Your task to perform on an android device: Clear the cart on ebay. Add asus zenbook to the cart on ebay, then select checkout. Image 0: 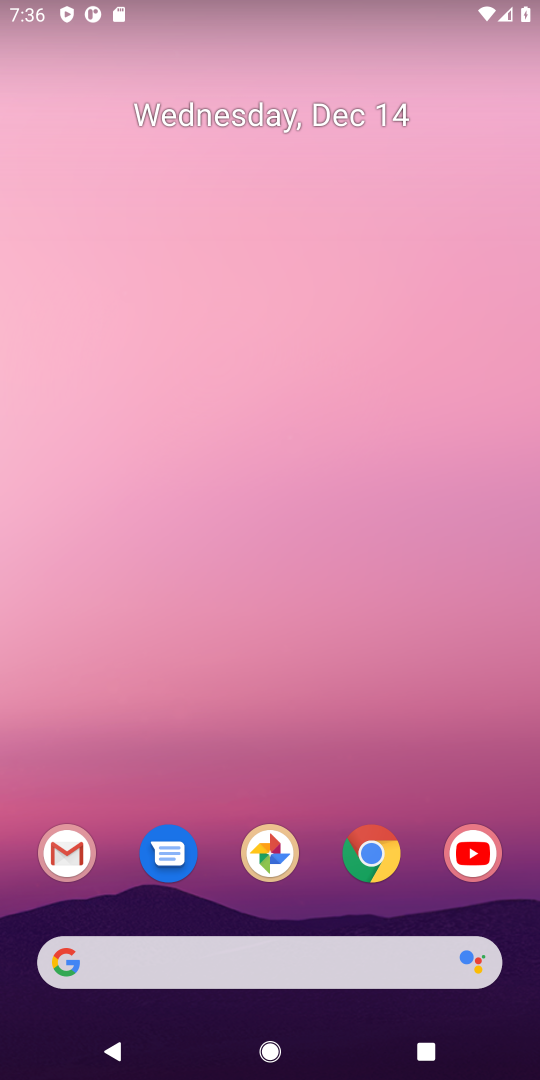
Step 0: click (369, 852)
Your task to perform on an android device: Clear the cart on ebay. Add asus zenbook to the cart on ebay, then select checkout. Image 1: 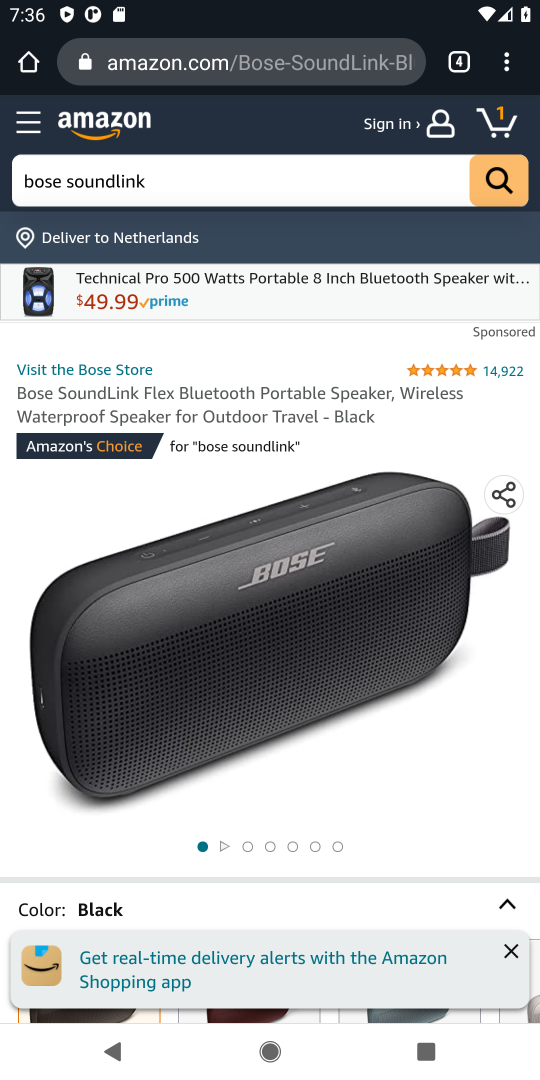
Step 1: click (473, 62)
Your task to perform on an android device: Clear the cart on ebay. Add asus zenbook to the cart on ebay, then select checkout. Image 2: 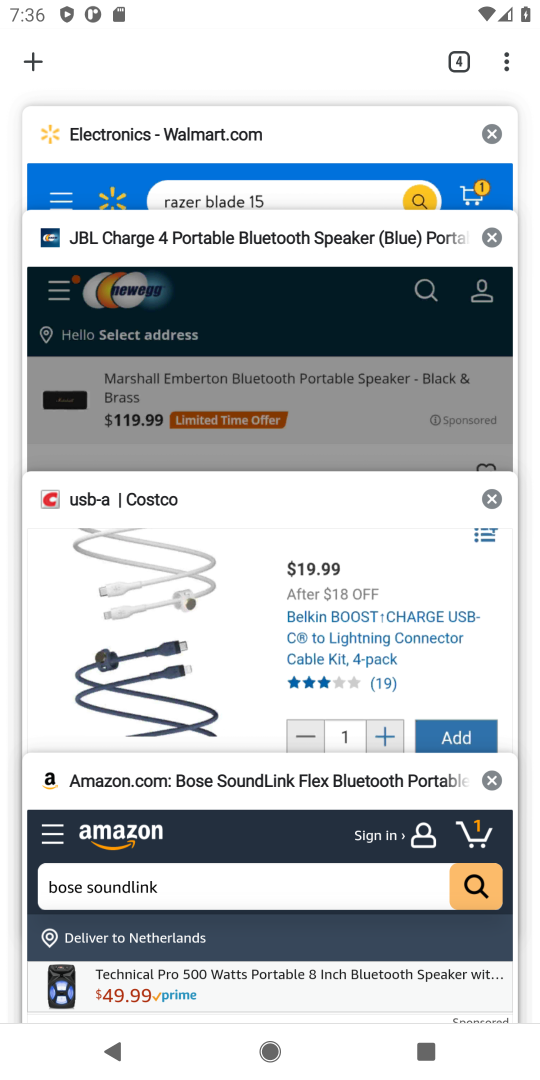
Step 2: click (36, 66)
Your task to perform on an android device: Clear the cart on ebay. Add asus zenbook to the cart on ebay, then select checkout. Image 3: 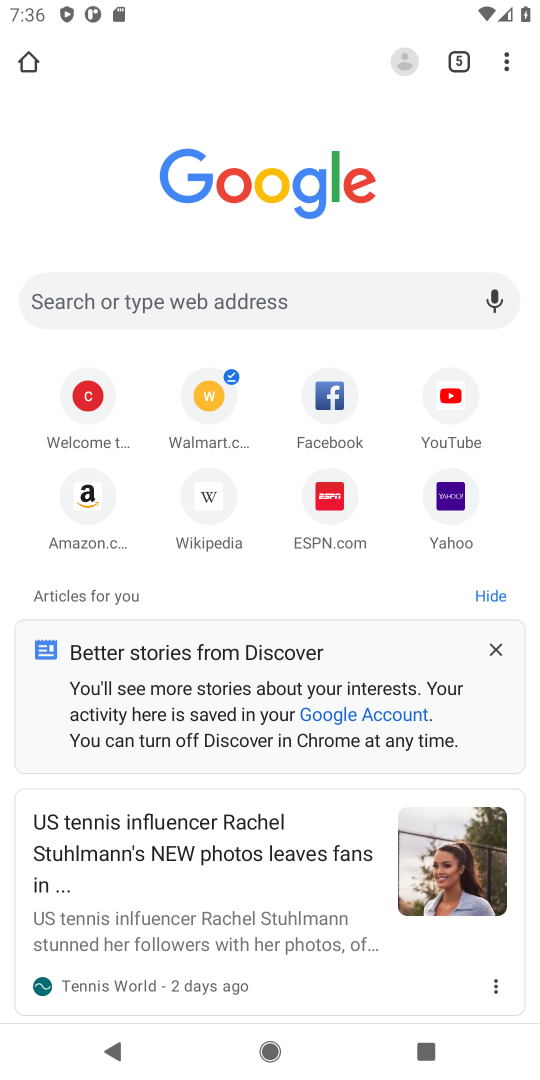
Step 3: click (273, 306)
Your task to perform on an android device: Clear the cart on ebay. Add asus zenbook to the cart on ebay, then select checkout. Image 4: 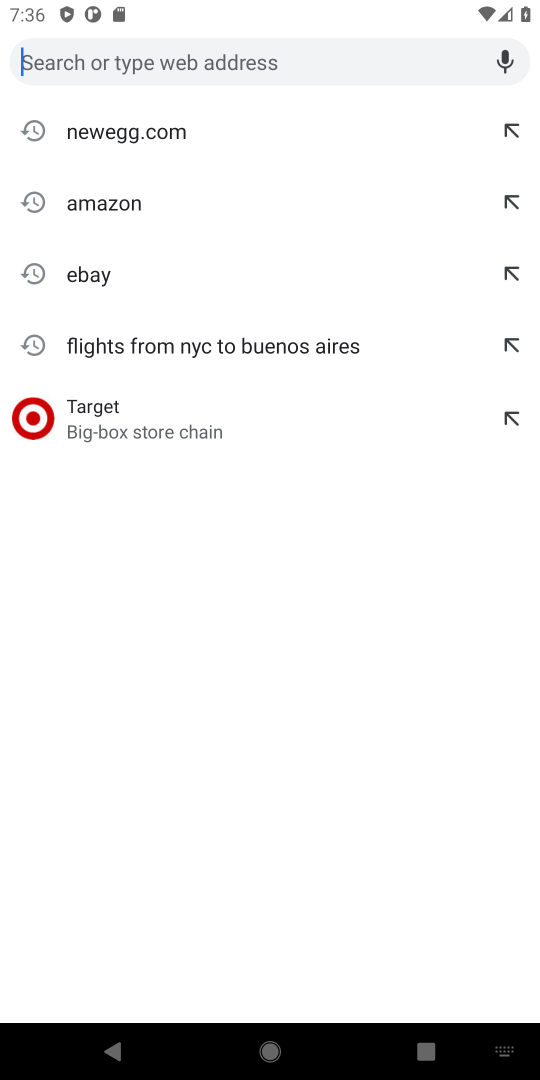
Step 4: click (60, 274)
Your task to perform on an android device: Clear the cart on ebay. Add asus zenbook to the cart on ebay, then select checkout. Image 5: 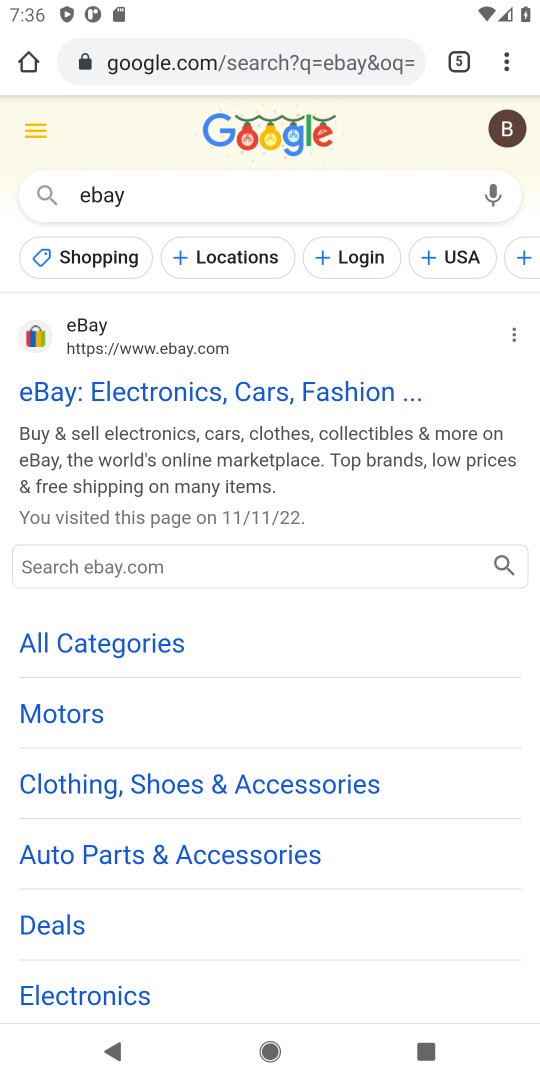
Step 5: click (111, 392)
Your task to perform on an android device: Clear the cart on ebay. Add asus zenbook to the cart on ebay, then select checkout. Image 6: 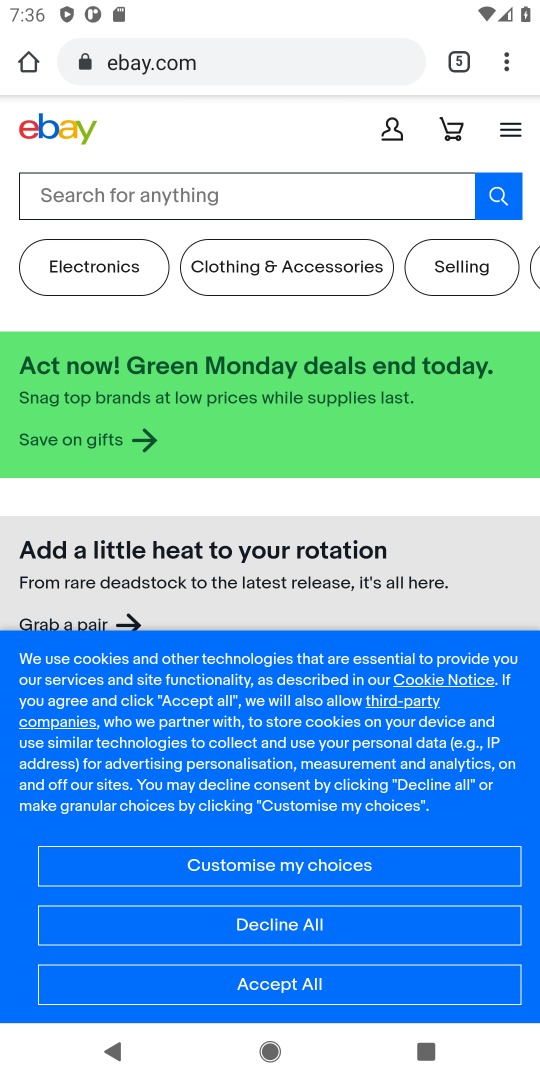
Step 6: click (356, 914)
Your task to perform on an android device: Clear the cart on ebay. Add asus zenbook to the cart on ebay, then select checkout. Image 7: 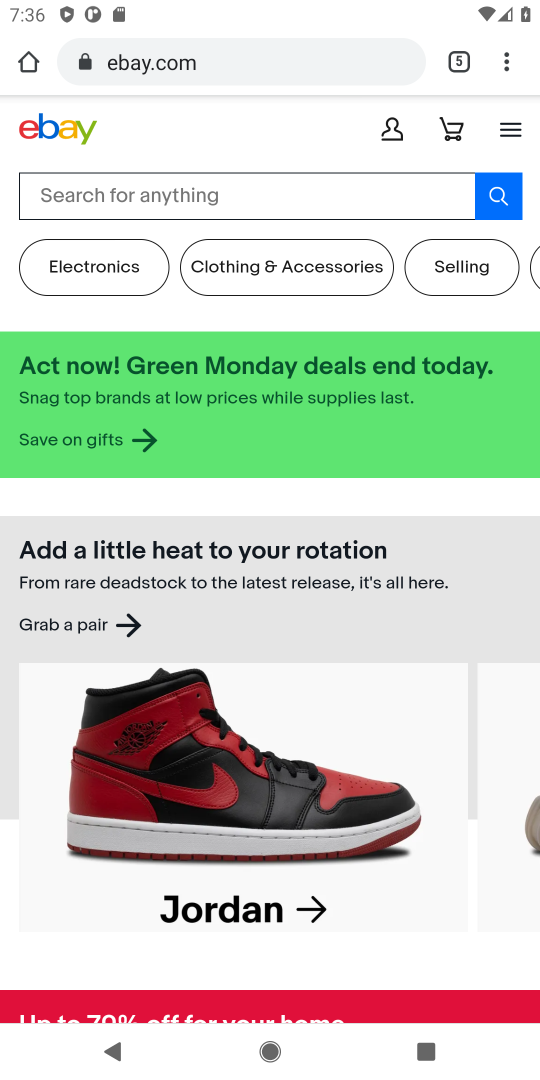
Step 7: click (170, 202)
Your task to perform on an android device: Clear the cart on ebay. Add asus zenbook to the cart on ebay, then select checkout. Image 8: 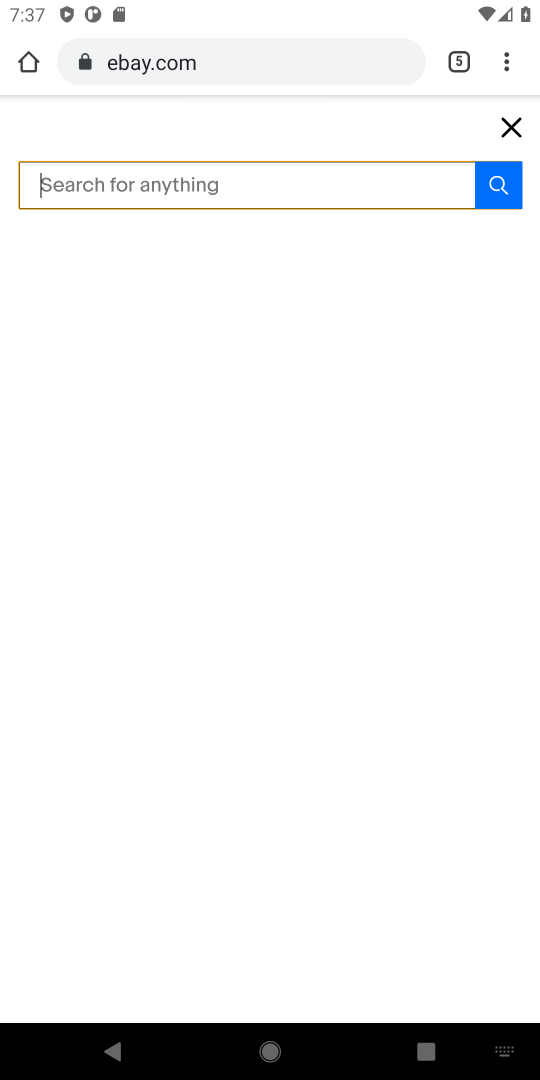
Step 8: type "asus zenbook"
Your task to perform on an android device: Clear the cart on ebay. Add asus zenbook to the cart on ebay, then select checkout. Image 9: 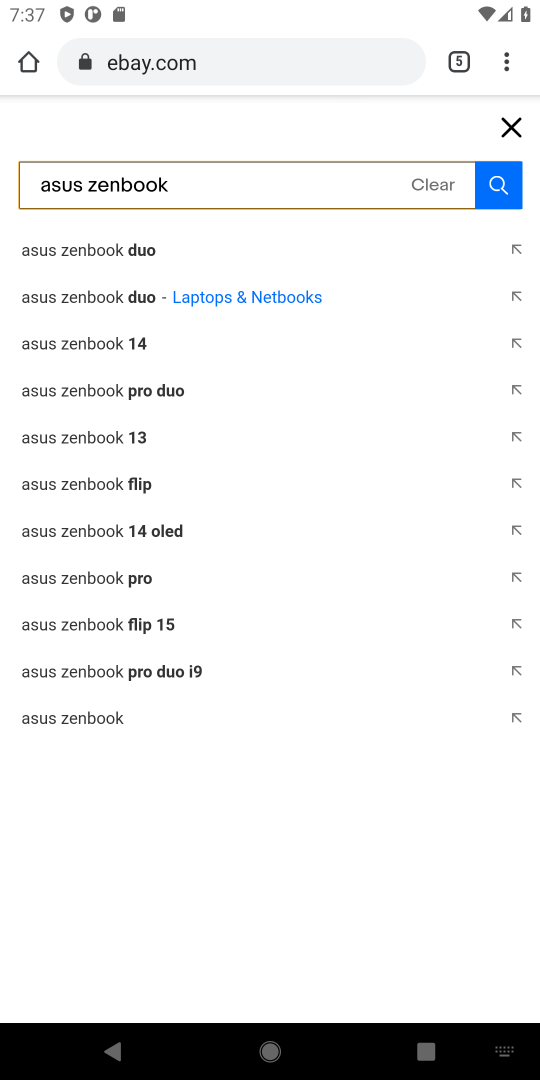
Step 9: click (499, 190)
Your task to perform on an android device: Clear the cart on ebay. Add asus zenbook to the cart on ebay, then select checkout. Image 10: 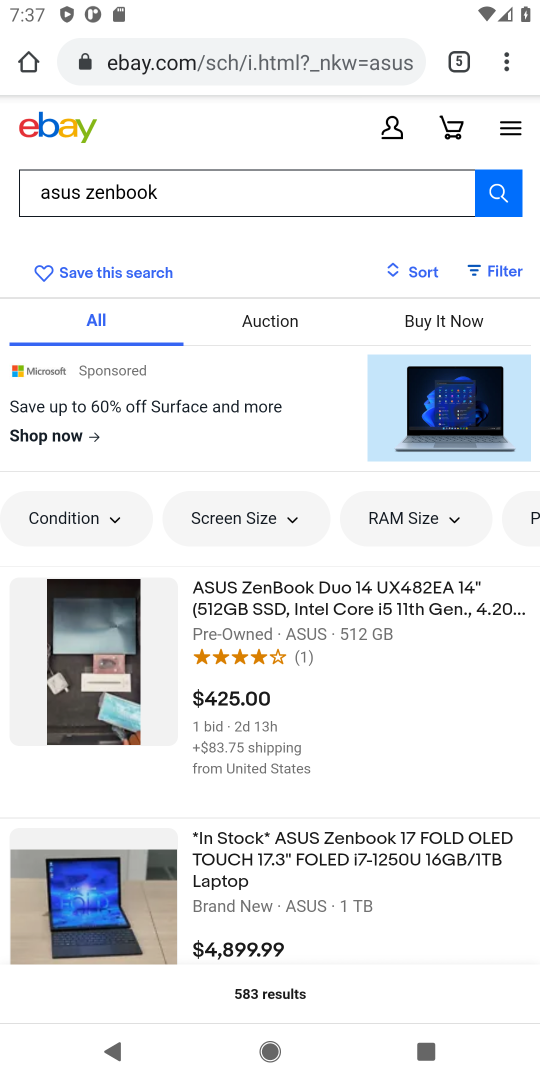
Step 10: click (315, 601)
Your task to perform on an android device: Clear the cart on ebay. Add asus zenbook to the cart on ebay, then select checkout. Image 11: 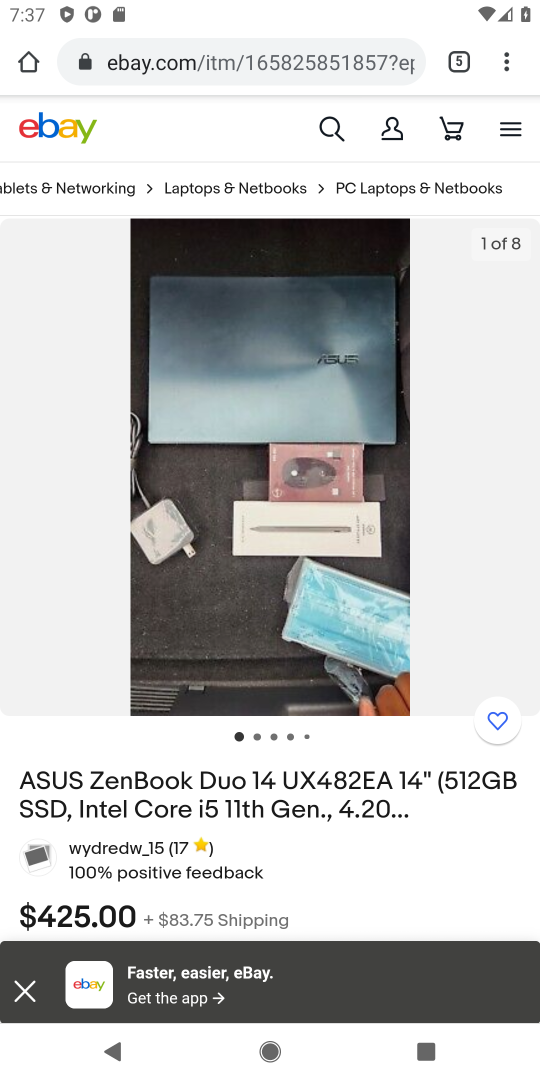
Step 11: click (27, 995)
Your task to perform on an android device: Clear the cart on ebay. Add asus zenbook to the cart on ebay, then select checkout. Image 12: 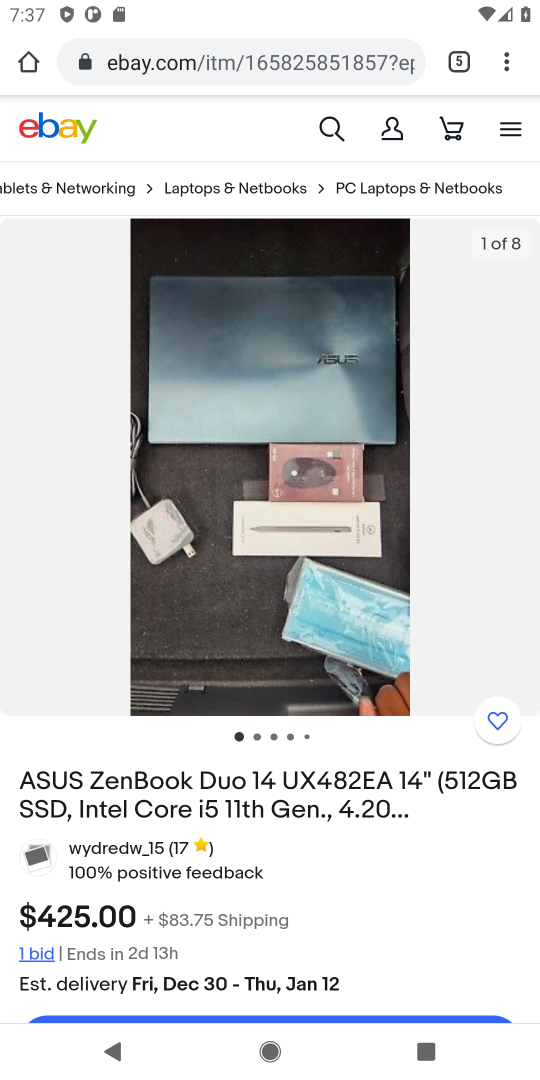
Step 12: drag from (273, 963) to (409, 321)
Your task to perform on an android device: Clear the cart on ebay. Add asus zenbook to the cart on ebay, then select checkout. Image 13: 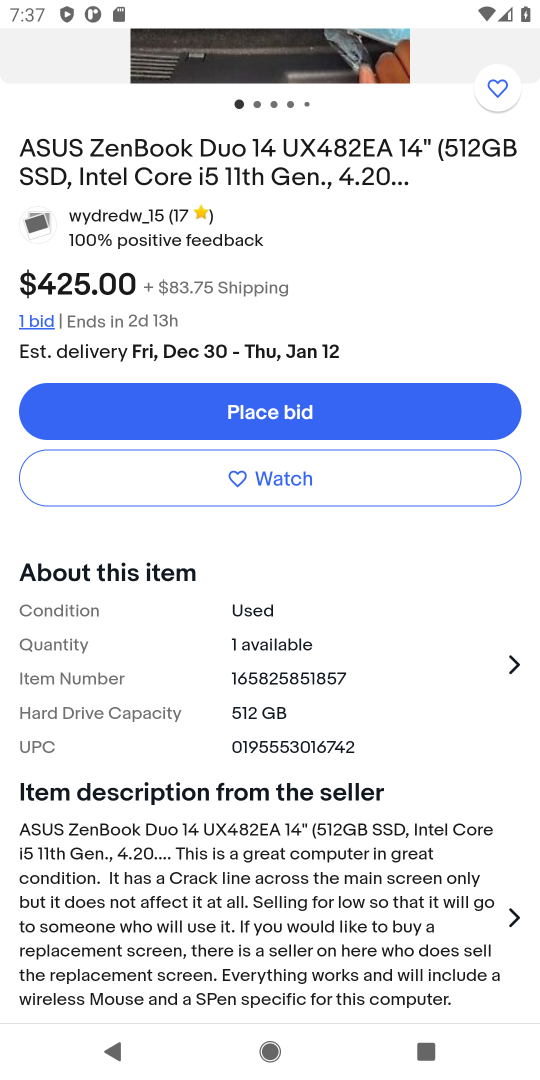
Step 13: drag from (306, 904) to (454, 262)
Your task to perform on an android device: Clear the cart on ebay. Add asus zenbook to the cart on ebay, then select checkout. Image 14: 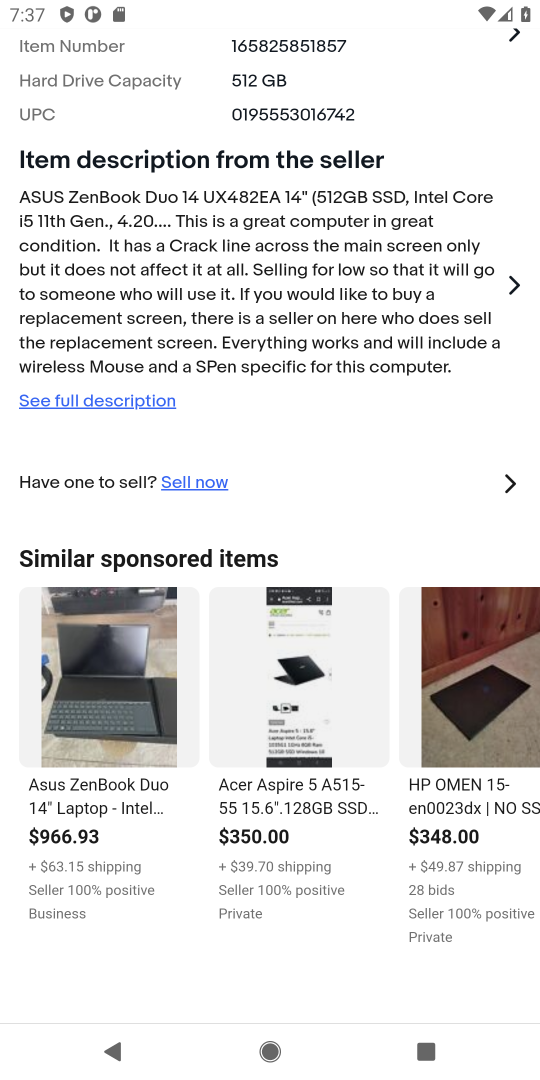
Step 14: click (118, 780)
Your task to perform on an android device: Clear the cart on ebay. Add asus zenbook to the cart on ebay, then select checkout. Image 15: 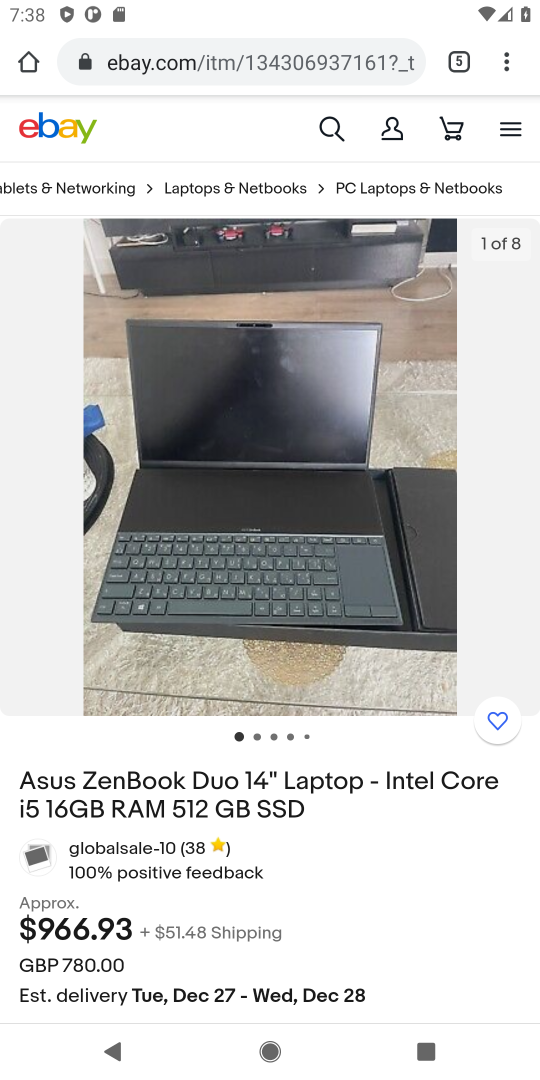
Step 15: drag from (306, 937) to (368, 511)
Your task to perform on an android device: Clear the cart on ebay. Add asus zenbook to the cart on ebay, then select checkout. Image 16: 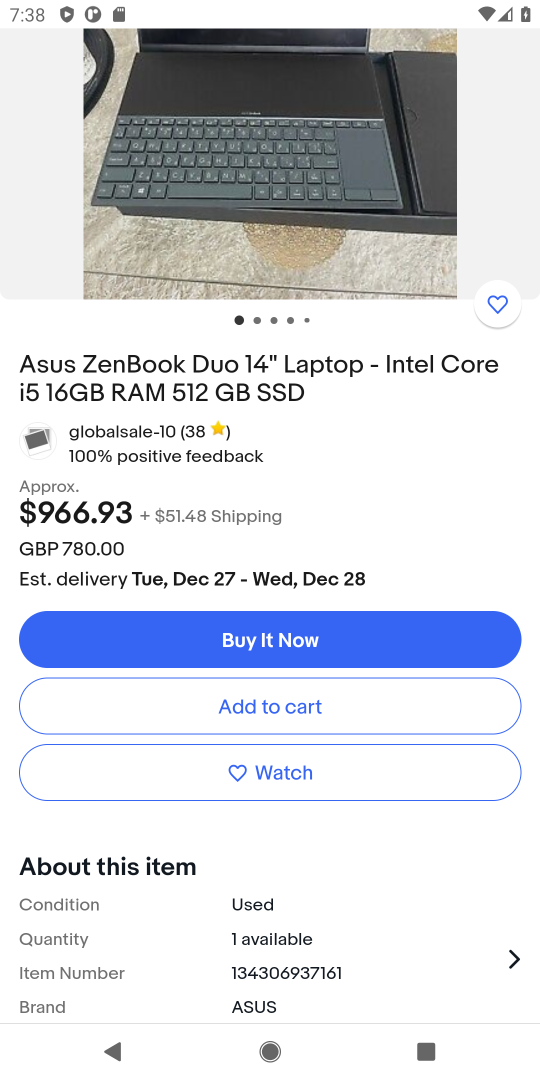
Step 16: click (306, 709)
Your task to perform on an android device: Clear the cart on ebay. Add asus zenbook to the cart on ebay, then select checkout. Image 17: 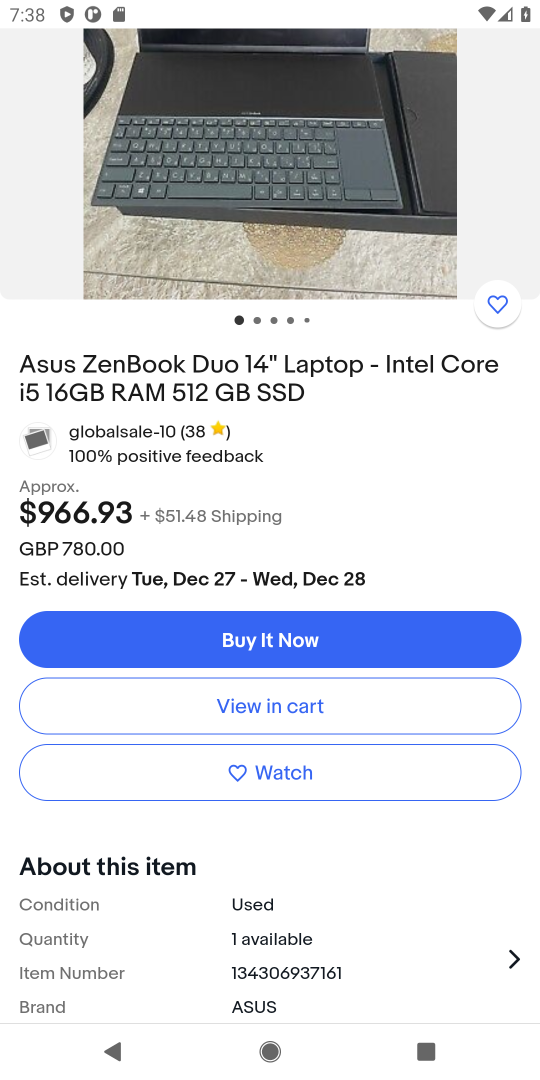
Step 17: task complete